Your task to perform on an android device: set default search engine in the chrome app Image 0: 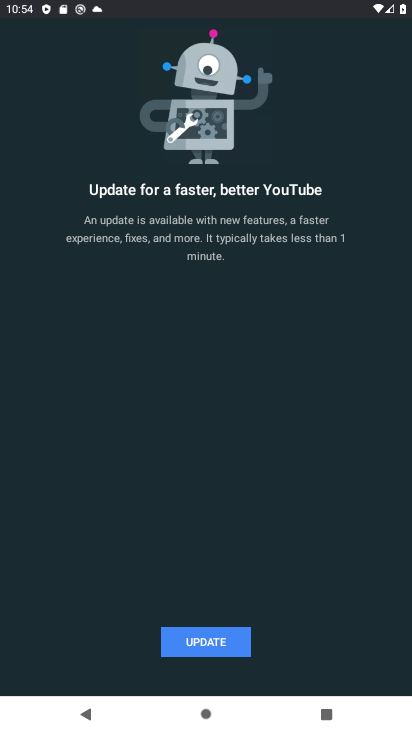
Step 0: press home button
Your task to perform on an android device: set default search engine in the chrome app Image 1: 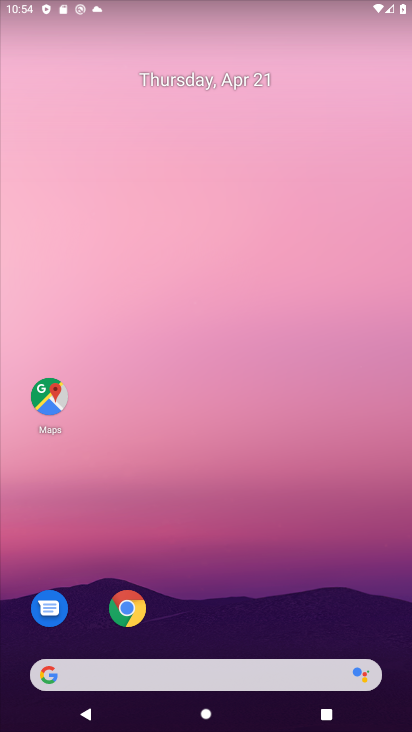
Step 1: click (127, 609)
Your task to perform on an android device: set default search engine in the chrome app Image 2: 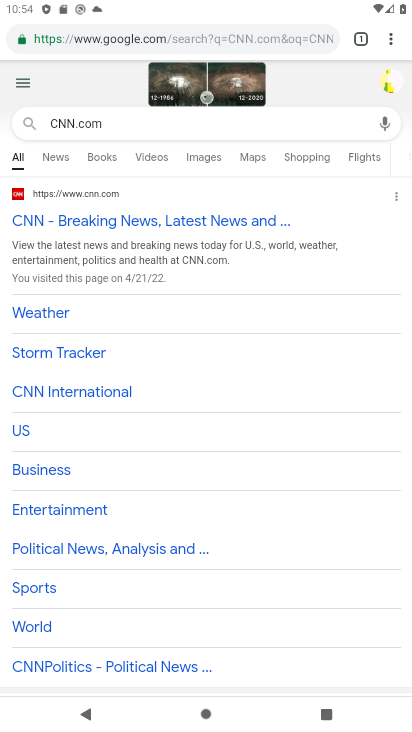
Step 2: click (395, 37)
Your task to perform on an android device: set default search engine in the chrome app Image 3: 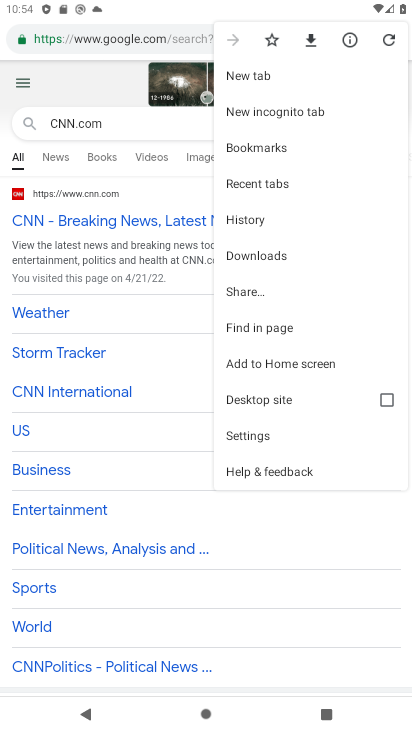
Step 3: click (252, 433)
Your task to perform on an android device: set default search engine in the chrome app Image 4: 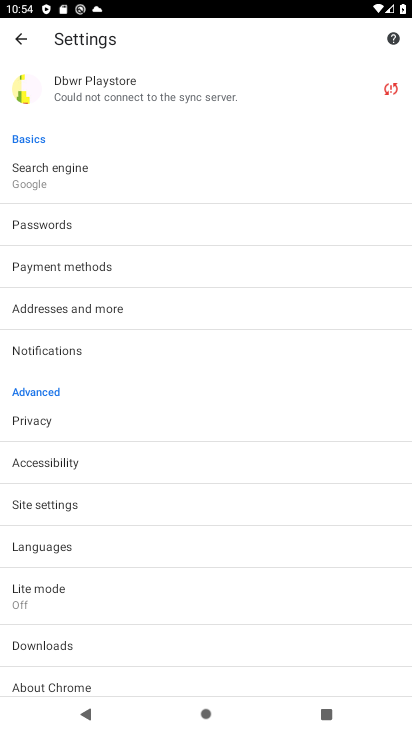
Step 4: click (77, 170)
Your task to perform on an android device: set default search engine in the chrome app Image 5: 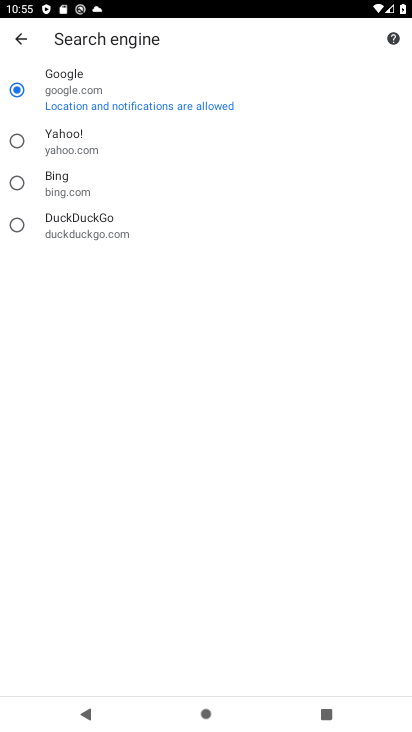
Step 5: click (69, 97)
Your task to perform on an android device: set default search engine in the chrome app Image 6: 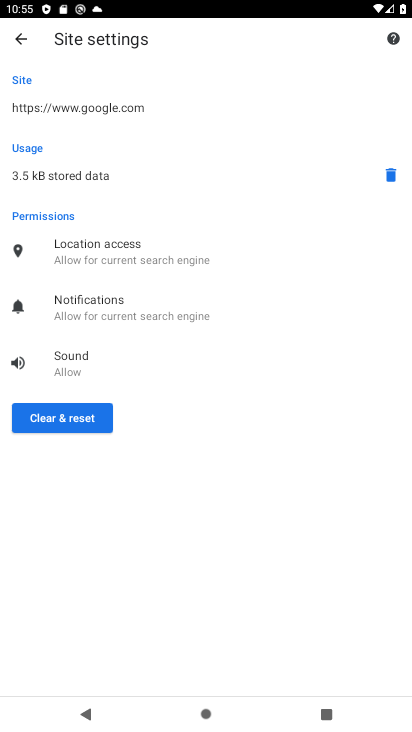
Step 6: click (11, 33)
Your task to perform on an android device: set default search engine in the chrome app Image 7: 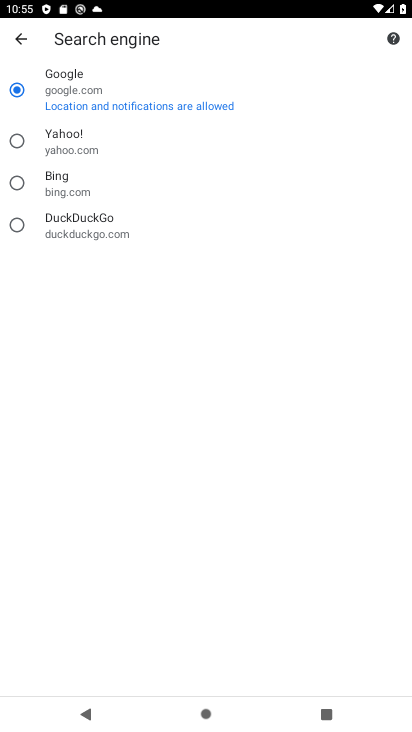
Step 7: task complete